Your task to perform on an android device: check android version Image 0: 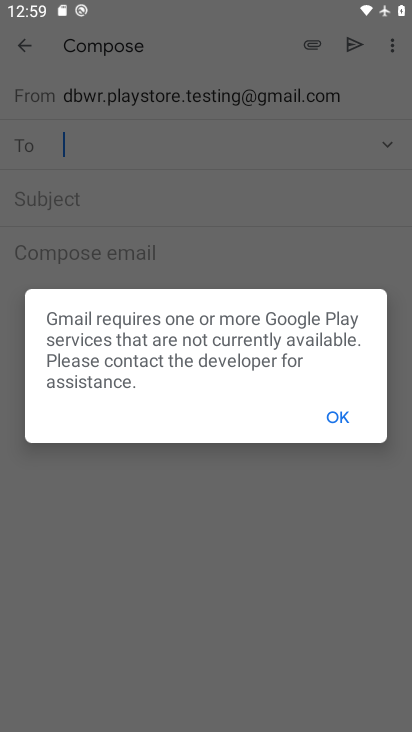
Step 0: click (339, 414)
Your task to perform on an android device: check android version Image 1: 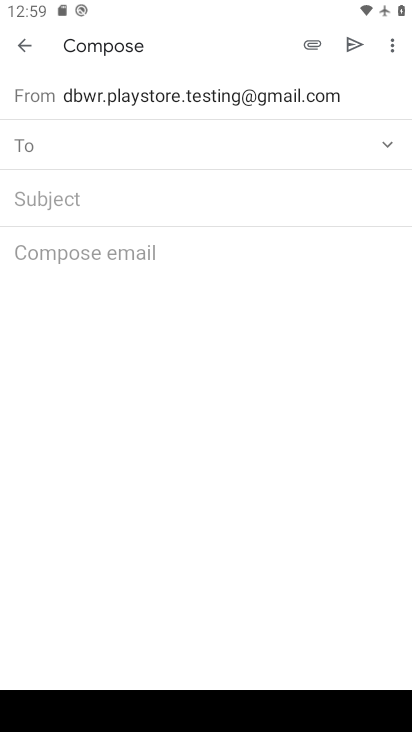
Step 1: click (21, 41)
Your task to perform on an android device: check android version Image 2: 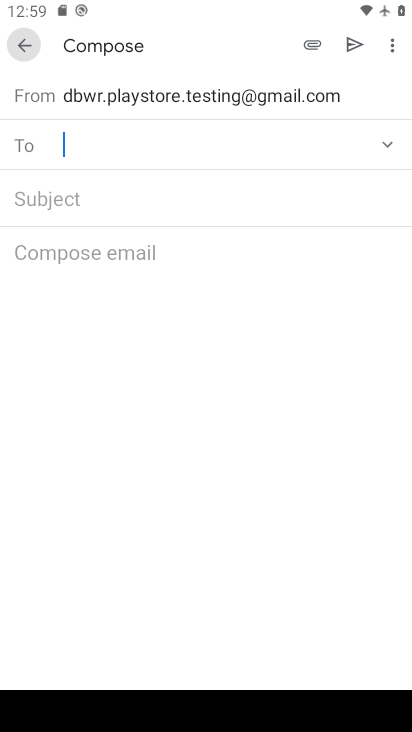
Step 2: click (28, 39)
Your task to perform on an android device: check android version Image 3: 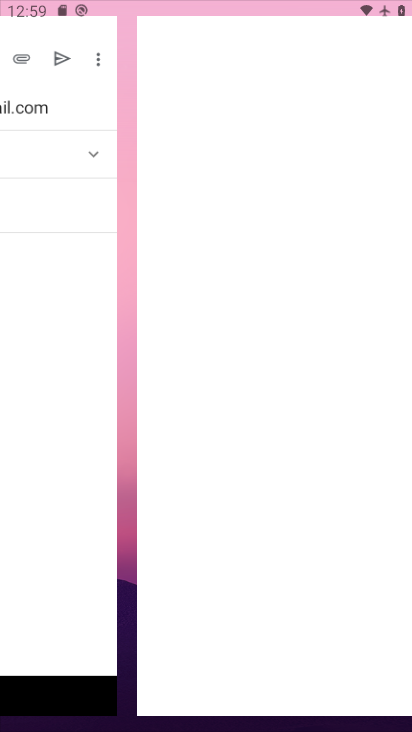
Step 3: click (28, 39)
Your task to perform on an android device: check android version Image 4: 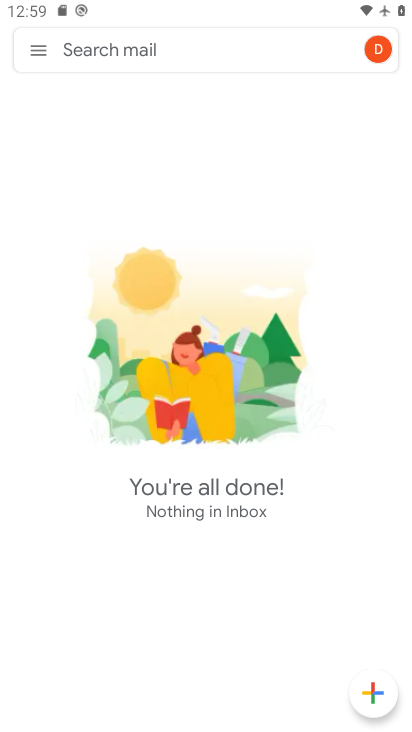
Step 4: press home button
Your task to perform on an android device: check android version Image 5: 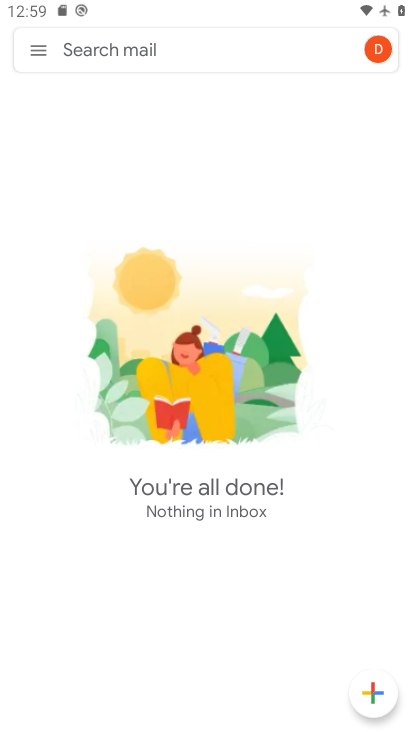
Step 5: press home button
Your task to perform on an android device: check android version Image 6: 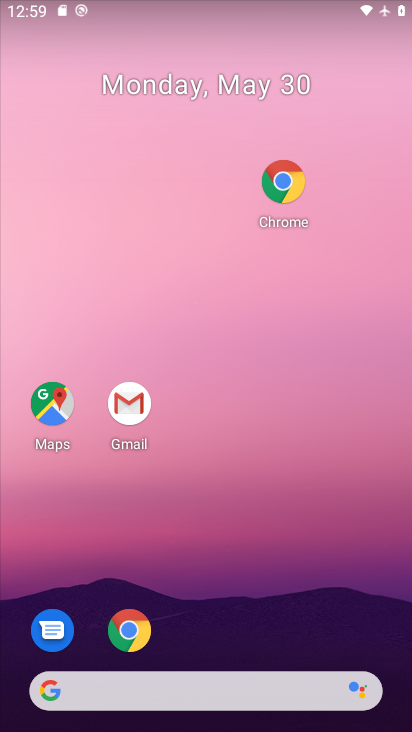
Step 6: drag from (245, 621) to (205, 130)
Your task to perform on an android device: check android version Image 7: 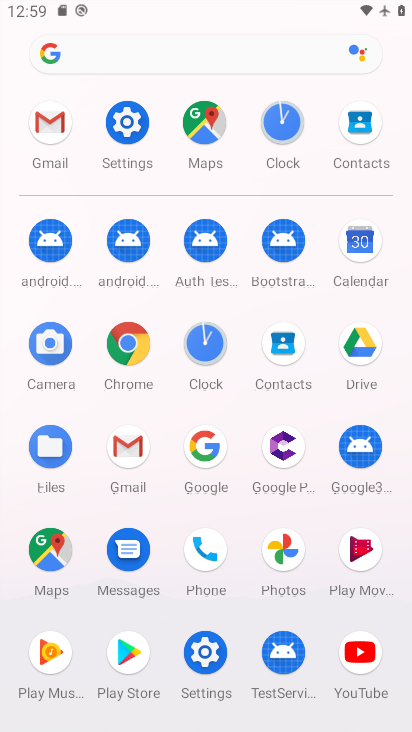
Step 7: click (197, 657)
Your task to perform on an android device: check android version Image 8: 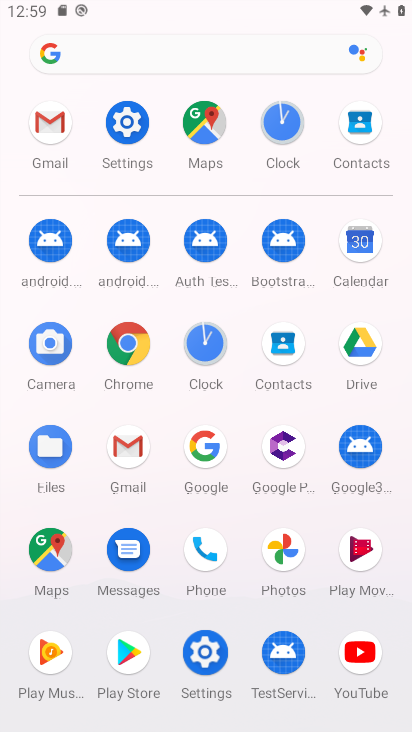
Step 8: click (197, 657)
Your task to perform on an android device: check android version Image 9: 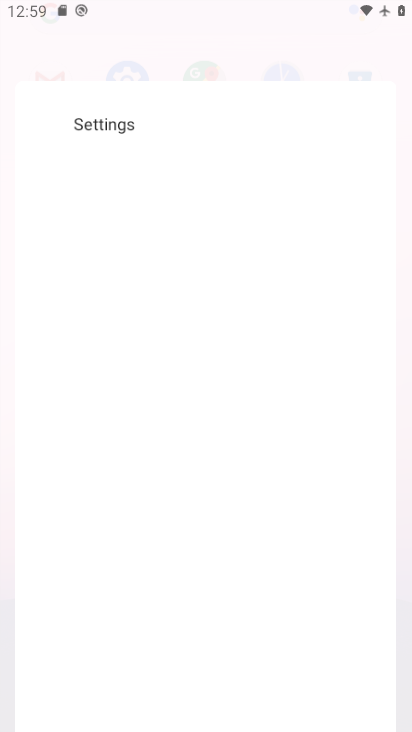
Step 9: click (197, 657)
Your task to perform on an android device: check android version Image 10: 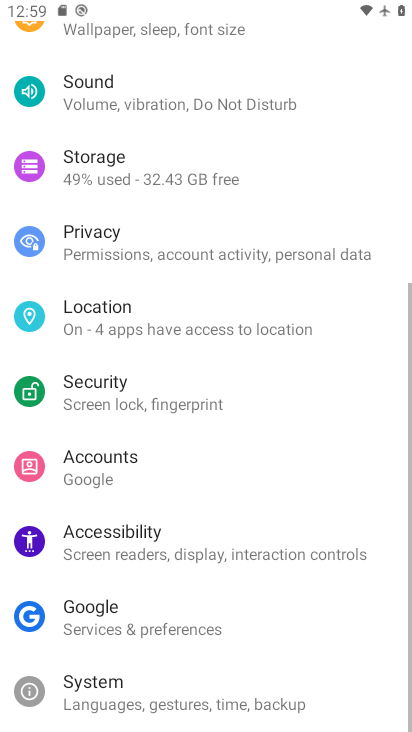
Step 10: click (197, 657)
Your task to perform on an android device: check android version Image 11: 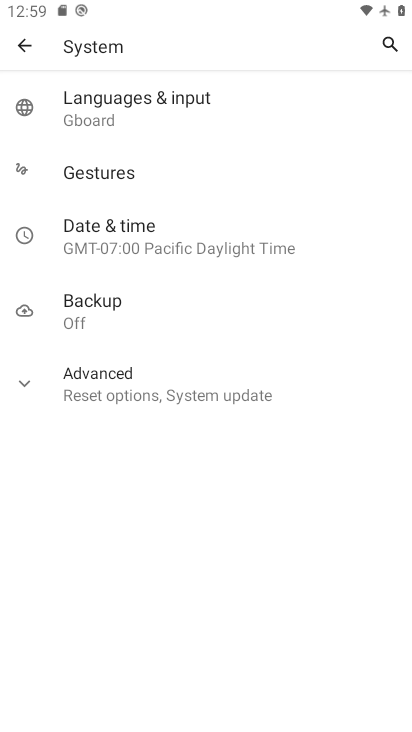
Step 11: drag from (122, 636) to (113, 184)
Your task to perform on an android device: check android version Image 12: 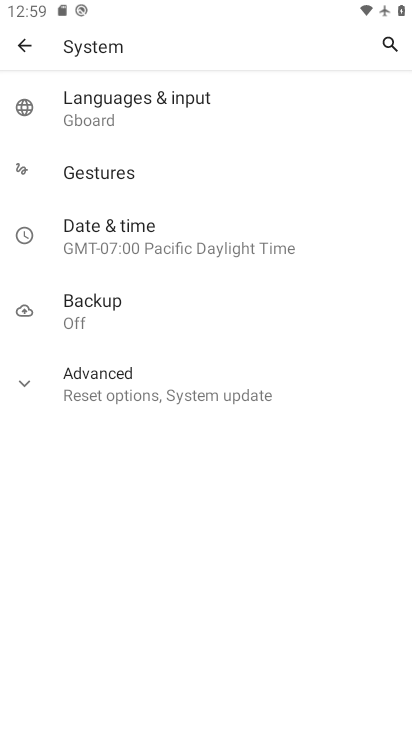
Step 12: click (27, 42)
Your task to perform on an android device: check android version Image 13: 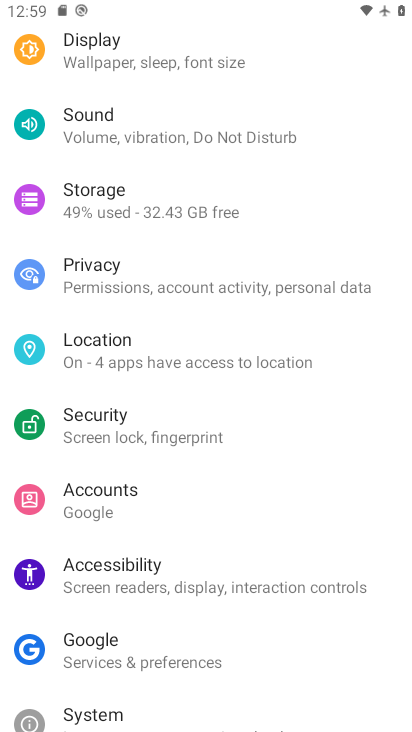
Step 13: drag from (192, 613) to (160, 186)
Your task to perform on an android device: check android version Image 14: 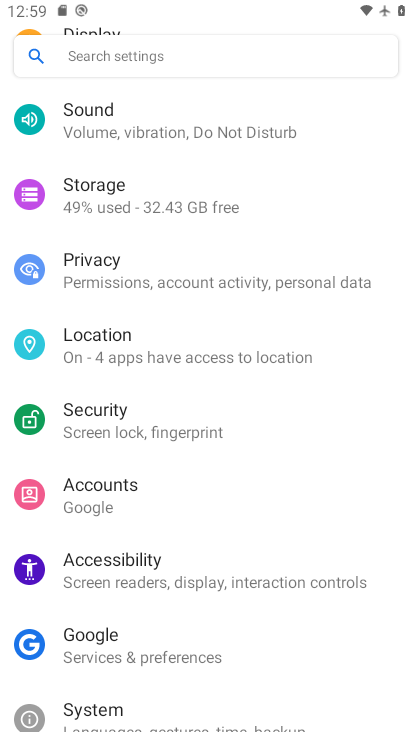
Step 14: drag from (194, 547) to (194, 172)
Your task to perform on an android device: check android version Image 15: 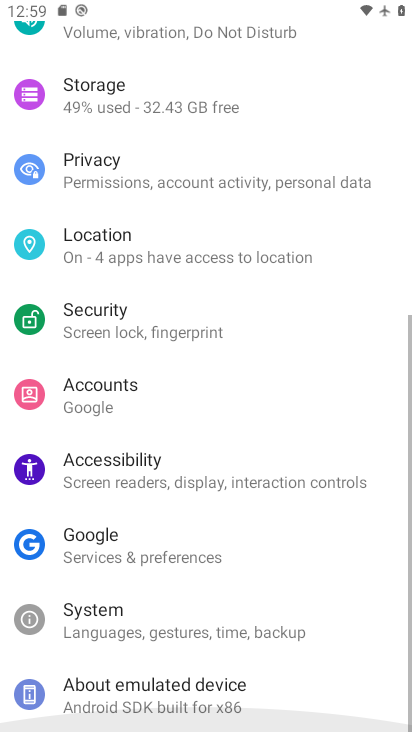
Step 15: drag from (184, 366) to (178, 259)
Your task to perform on an android device: check android version Image 16: 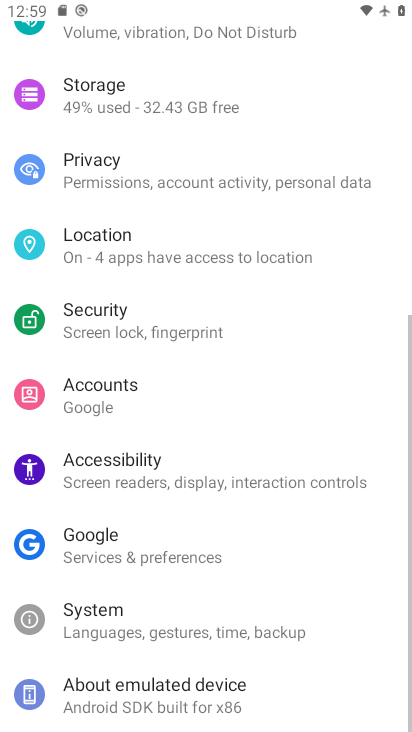
Step 16: drag from (167, 692) to (104, 245)
Your task to perform on an android device: check android version Image 17: 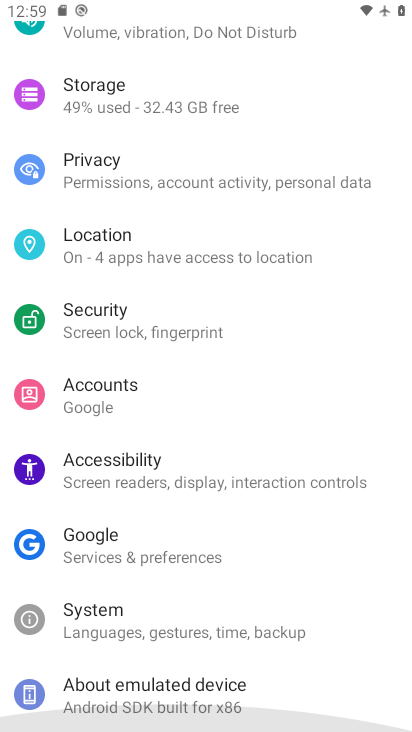
Step 17: click (91, 213)
Your task to perform on an android device: check android version Image 18: 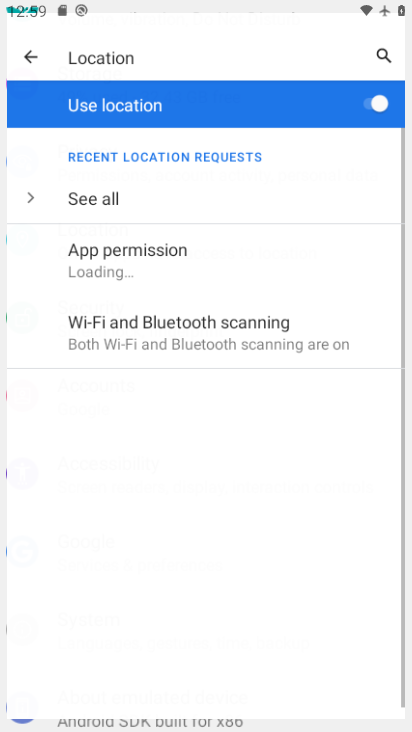
Step 18: click (103, 682)
Your task to perform on an android device: check android version Image 19: 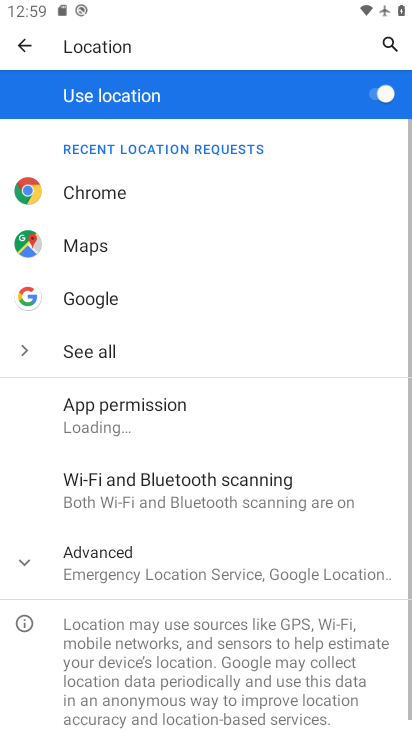
Step 19: click (103, 682)
Your task to perform on an android device: check android version Image 20: 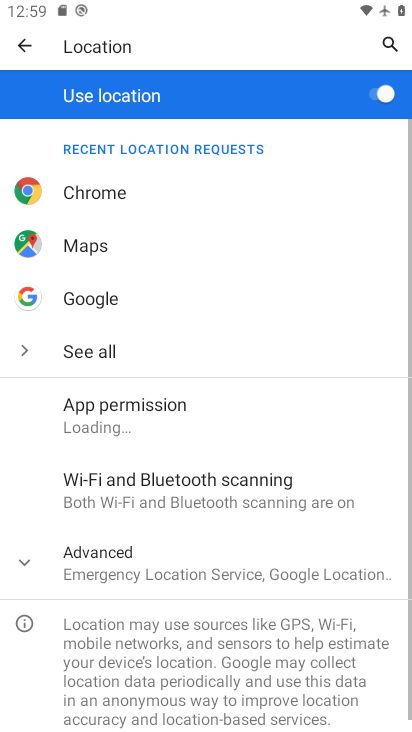
Step 20: click (103, 682)
Your task to perform on an android device: check android version Image 21: 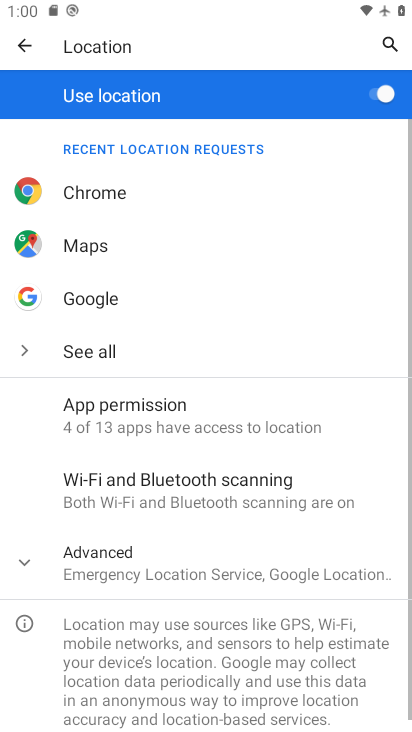
Step 21: click (23, 46)
Your task to perform on an android device: check android version Image 22: 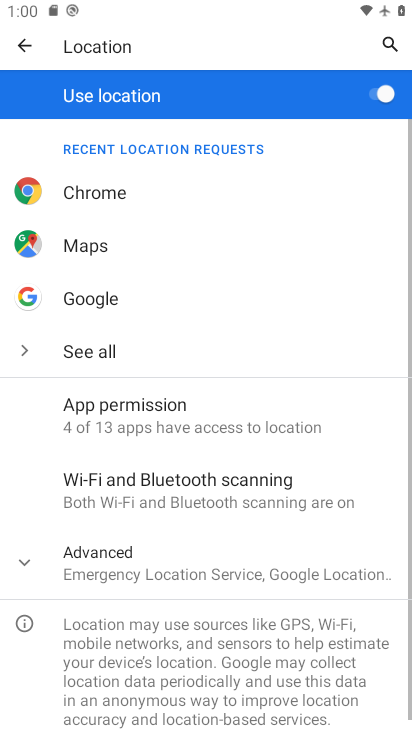
Step 22: click (23, 46)
Your task to perform on an android device: check android version Image 23: 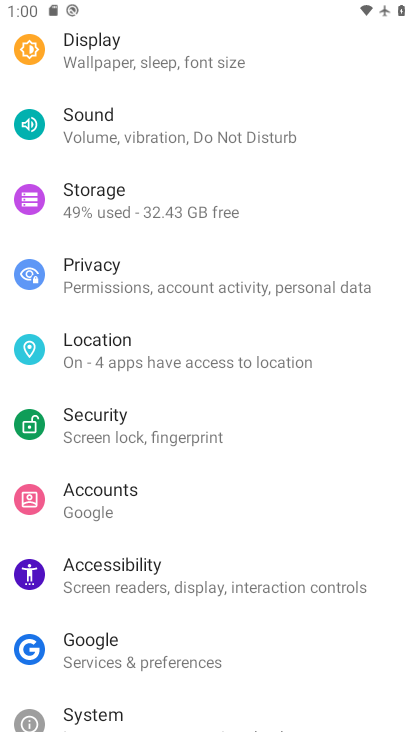
Step 23: drag from (123, 637) to (126, 280)
Your task to perform on an android device: check android version Image 24: 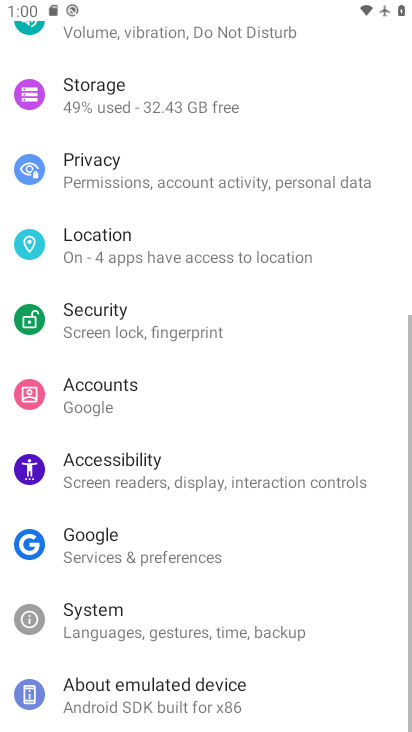
Step 24: drag from (160, 564) to (165, 328)
Your task to perform on an android device: check android version Image 25: 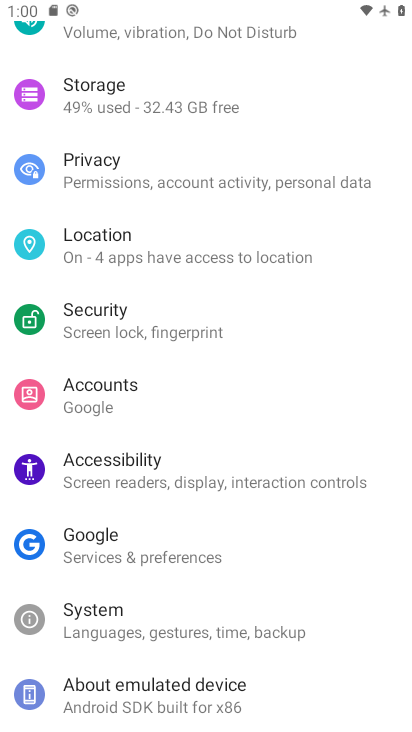
Step 25: drag from (167, 597) to (118, 324)
Your task to perform on an android device: check android version Image 26: 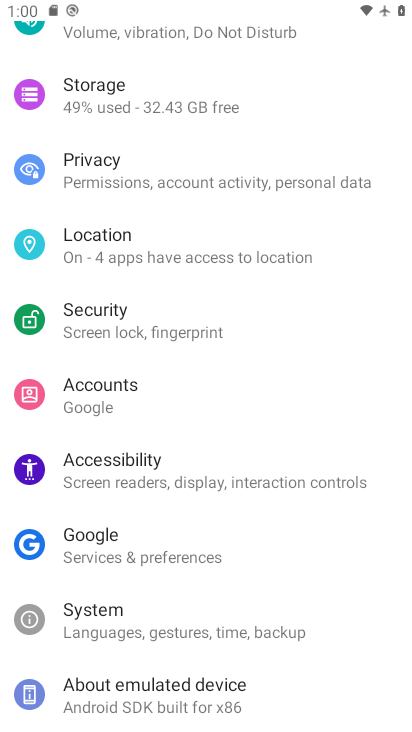
Step 26: click (147, 705)
Your task to perform on an android device: check android version Image 27: 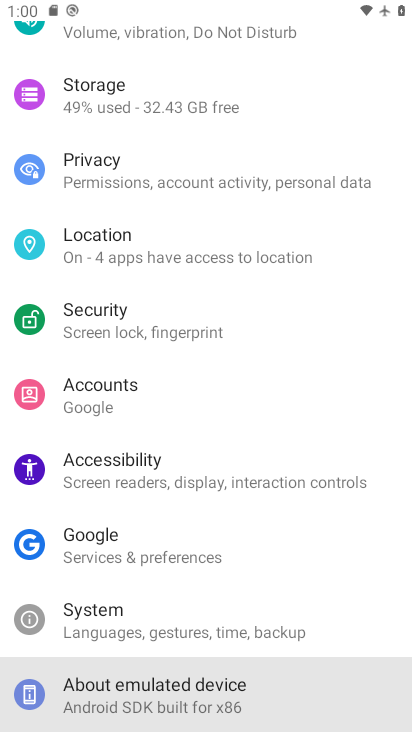
Step 27: click (136, 700)
Your task to perform on an android device: check android version Image 28: 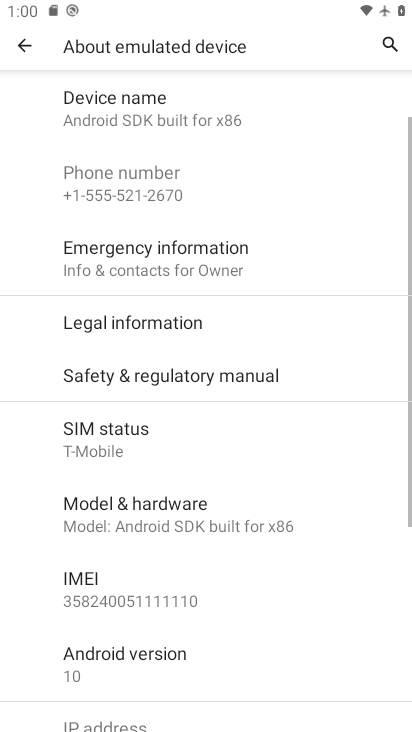
Step 28: task complete